Your task to perform on an android device: show emergency info Image 0: 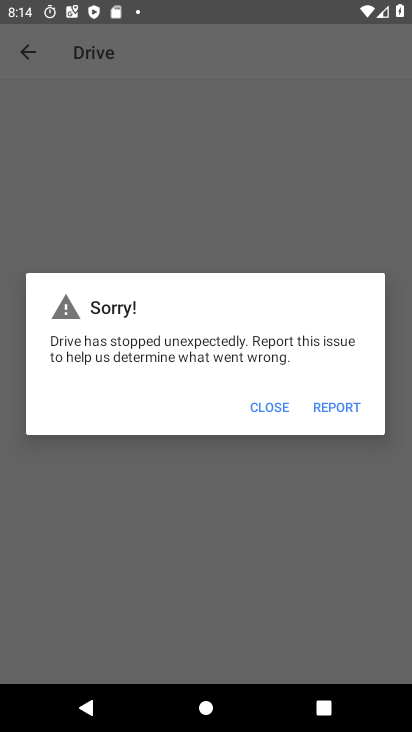
Step 0: press home button
Your task to perform on an android device: show emergency info Image 1: 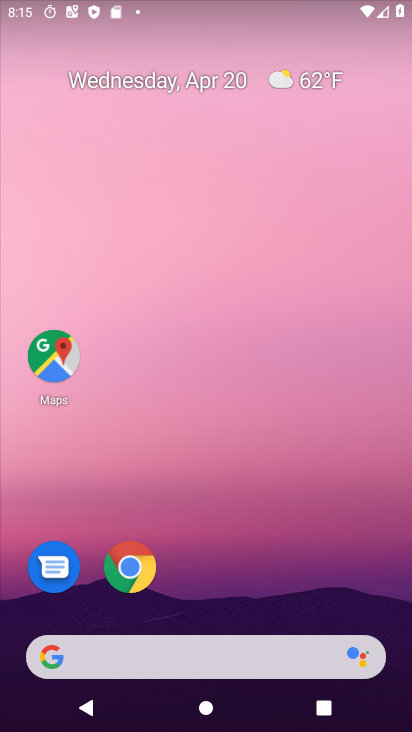
Step 1: drag from (230, 639) to (240, 251)
Your task to perform on an android device: show emergency info Image 2: 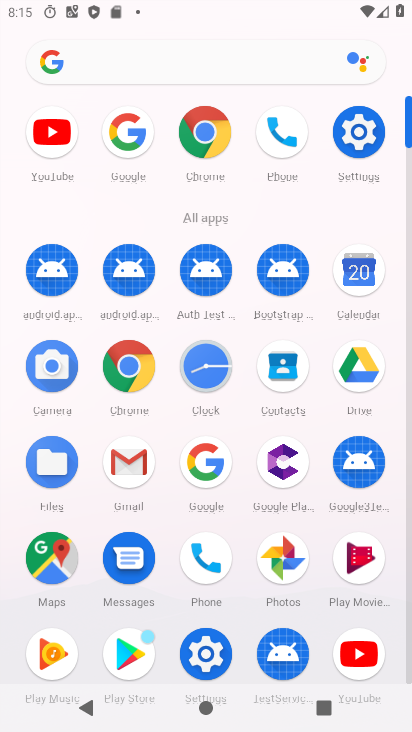
Step 2: click (359, 131)
Your task to perform on an android device: show emergency info Image 3: 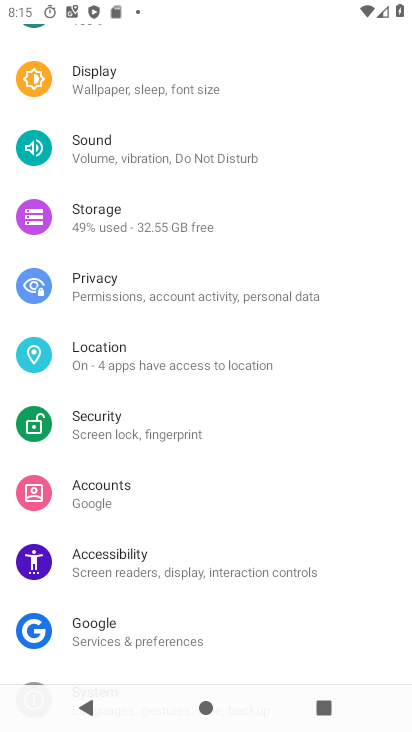
Step 3: drag from (148, 592) to (169, 193)
Your task to perform on an android device: show emergency info Image 4: 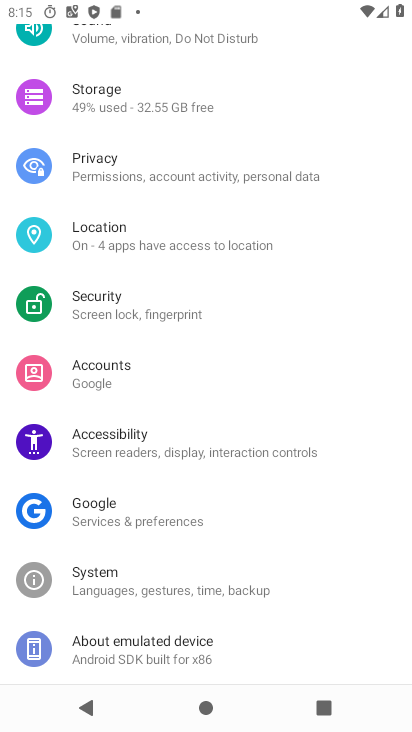
Step 4: click (128, 647)
Your task to perform on an android device: show emergency info Image 5: 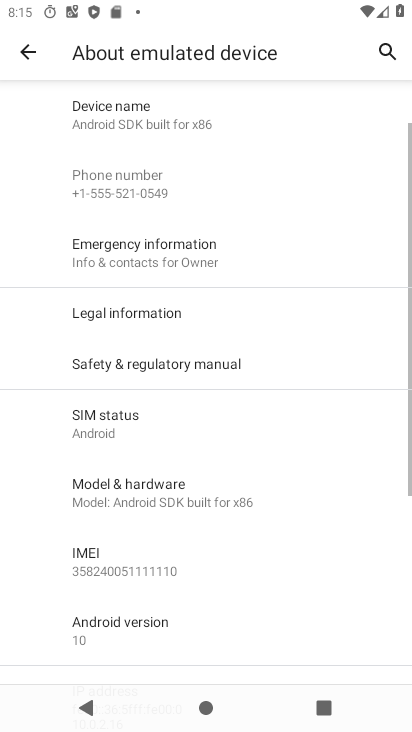
Step 5: click (136, 252)
Your task to perform on an android device: show emergency info Image 6: 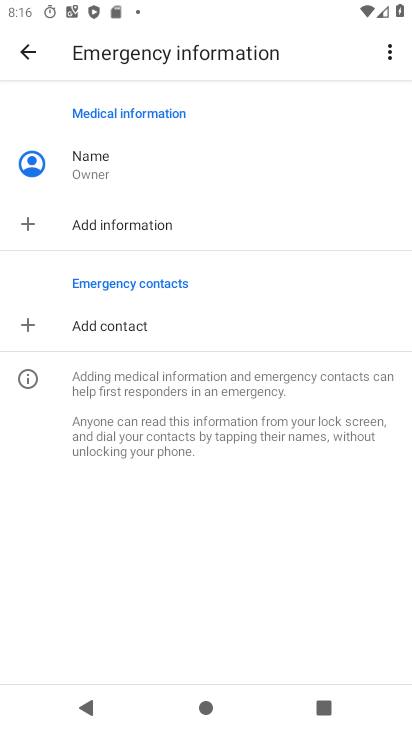
Step 6: task complete